Your task to perform on an android device: star an email in the gmail app Image 0: 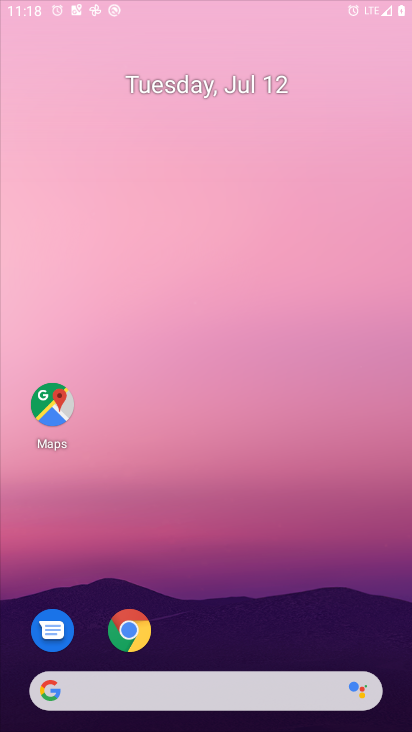
Step 0: press home button
Your task to perform on an android device: star an email in the gmail app Image 1: 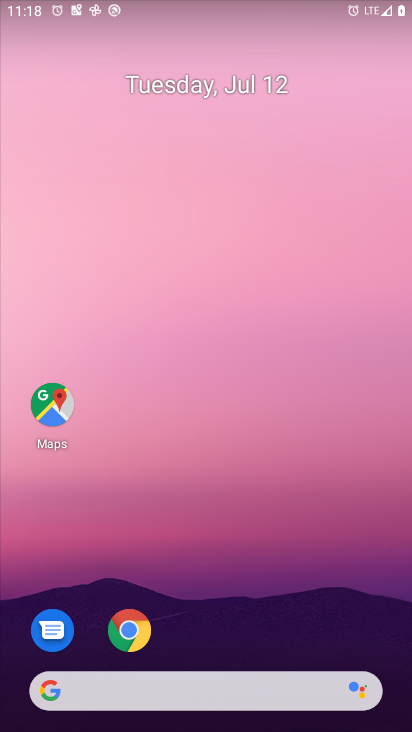
Step 1: drag from (217, 625) to (148, 18)
Your task to perform on an android device: star an email in the gmail app Image 2: 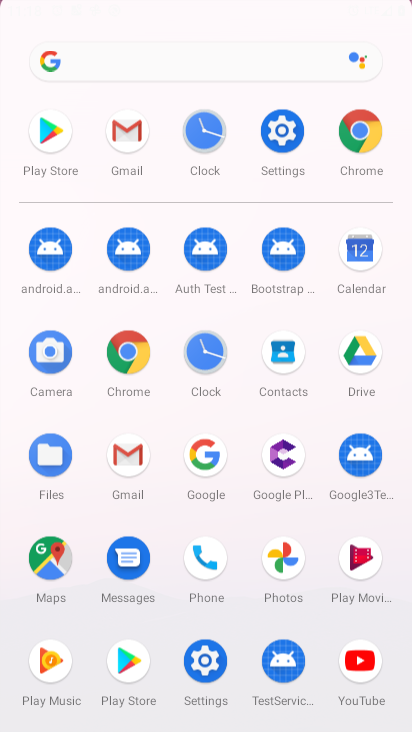
Step 2: click (128, 170)
Your task to perform on an android device: star an email in the gmail app Image 3: 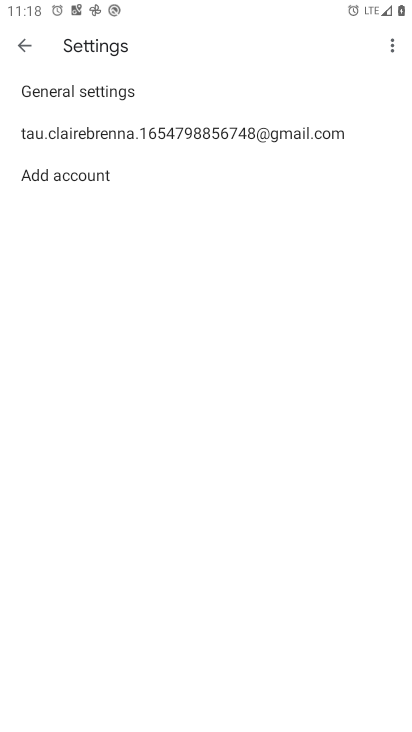
Step 3: press back button
Your task to perform on an android device: star an email in the gmail app Image 4: 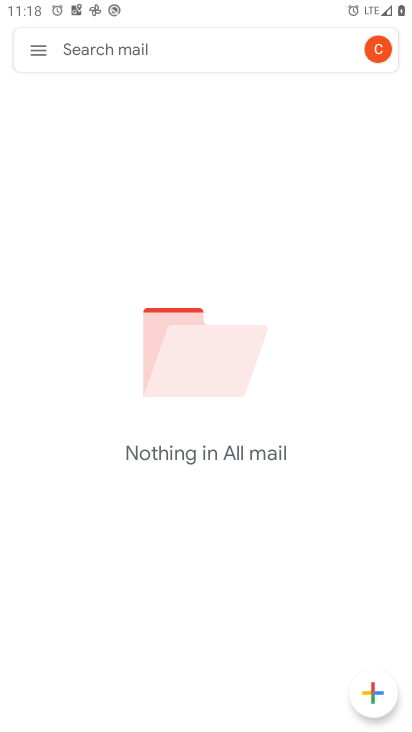
Step 4: click (35, 47)
Your task to perform on an android device: star an email in the gmail app Image 5: 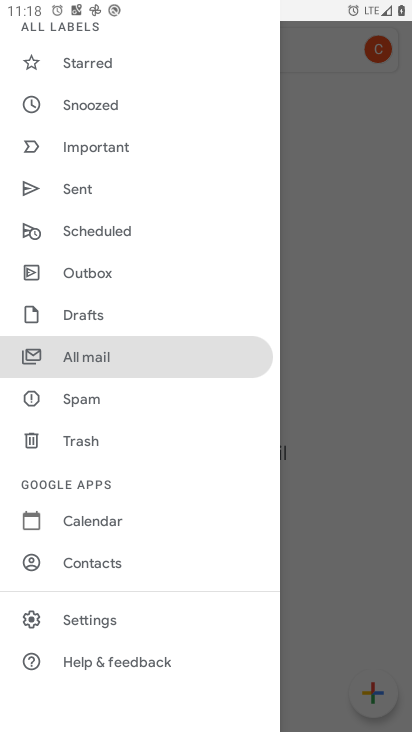
Step 5: click (114, 365)
Your task to perform on an android device: star an email in the gmail app Image 6: 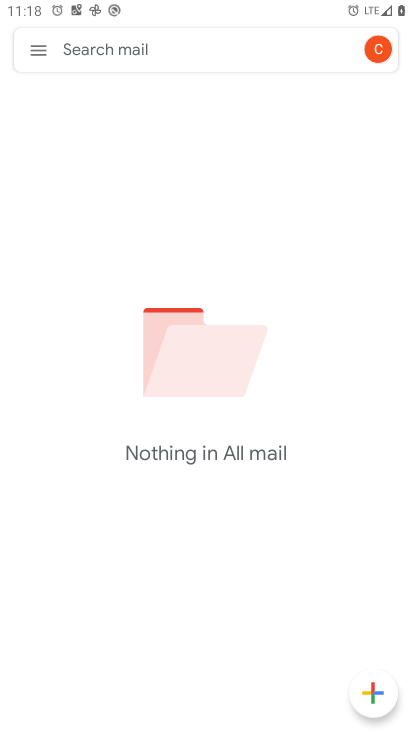
Step 6: task complete